Your task to perform on an android device: delete a single message in the gmail app Image 0: 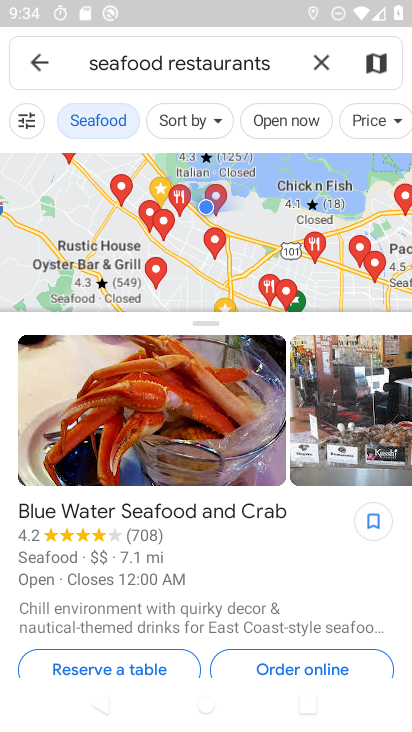
Step 0: press home button
Your task to perform on an android device: delete a single message in the gmail app Image 1: 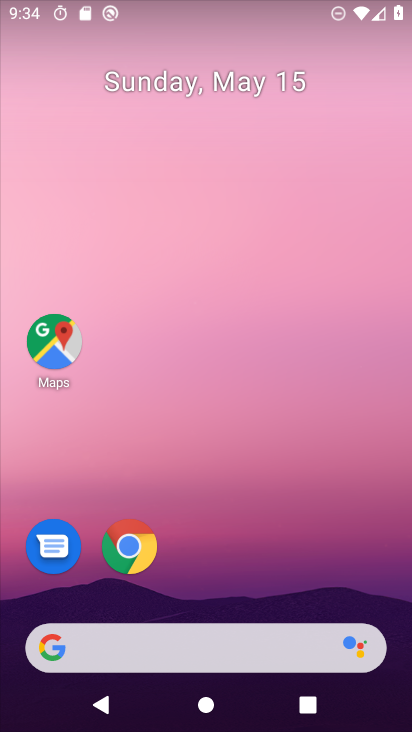
Step 1: drag from (235, 556) to (301, 46)
Your task to perform on an android device: delete a single message in the gmail app Image 2: 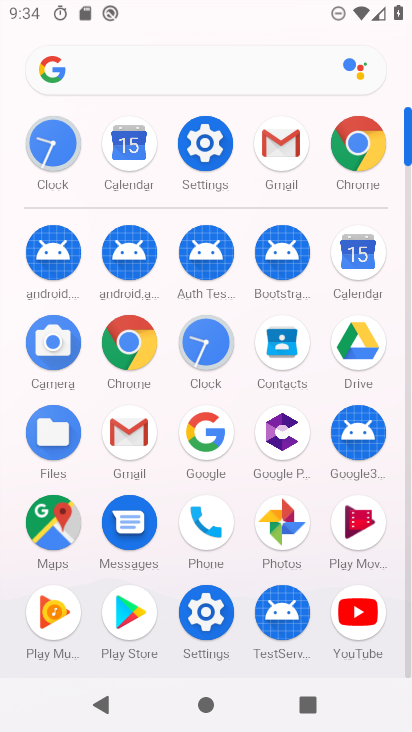
Step 2: click (281, 140)
Your task to perform on an android device: delete a single message in the gmail app Image 3: 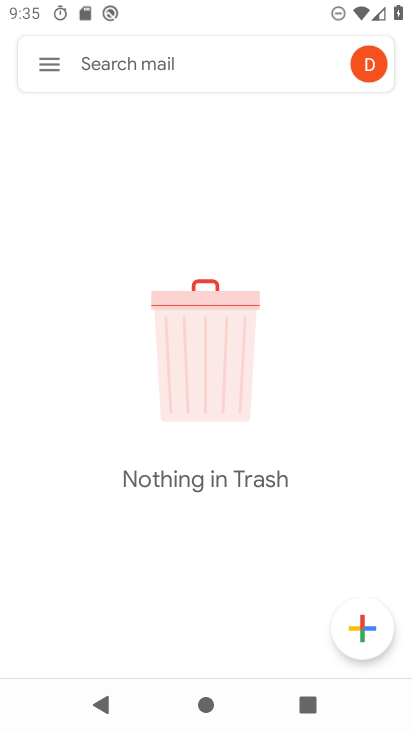
Step 3: click (50, 54)
Your task to perform on an android device: delete a single message in the gmail app Image 4: 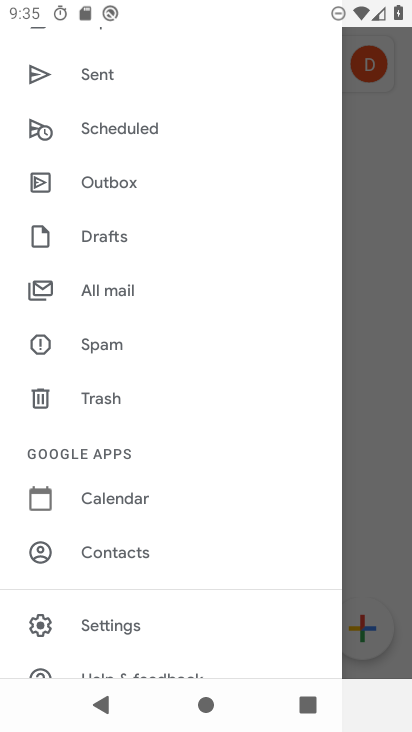
Step 4: click (112, 281)
Your task to perform on an android device: delete a single message in the gmail app Image 5: 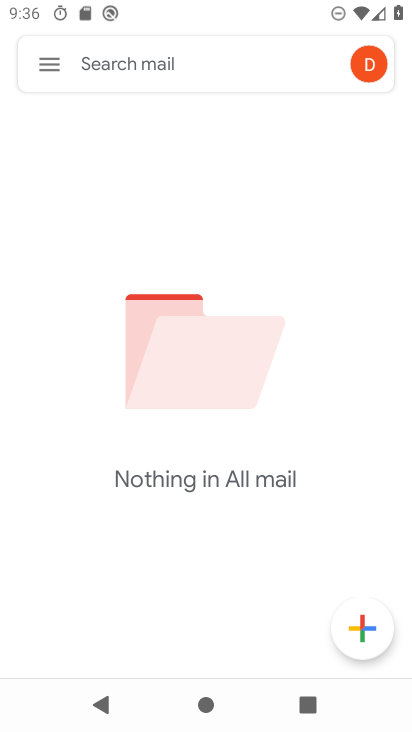
Step 5: task complete